Your task to perform on an android device: Show me recent news Image 0: 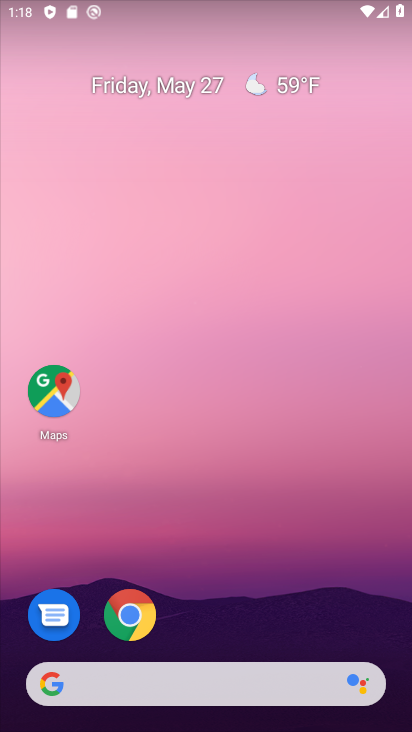
Step 0: click (266, 678)
Your task to perform on an android device: Show me recent news Image 1: 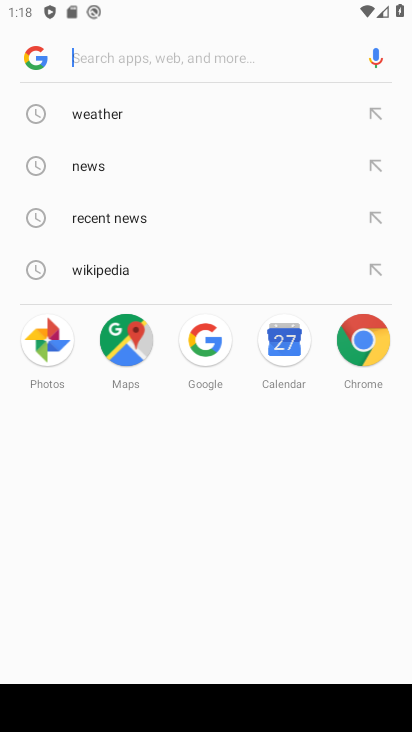
Step 1: click (121, 214)
Your task to perform on an android device: Show me recent news Image 2: 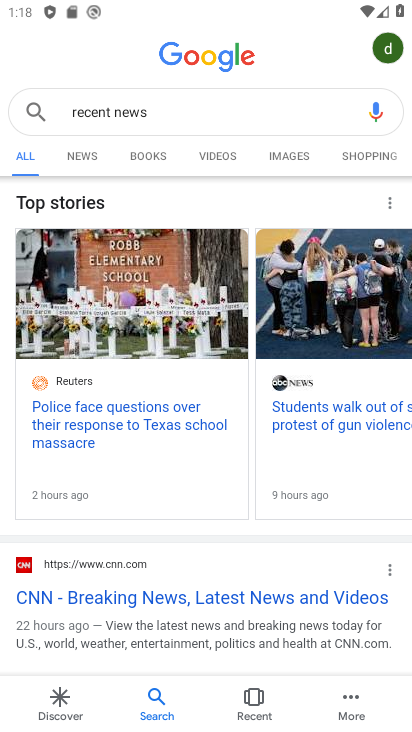
Step 2: task complete